Your task to perform on an android device: toggle wifi Image 0: 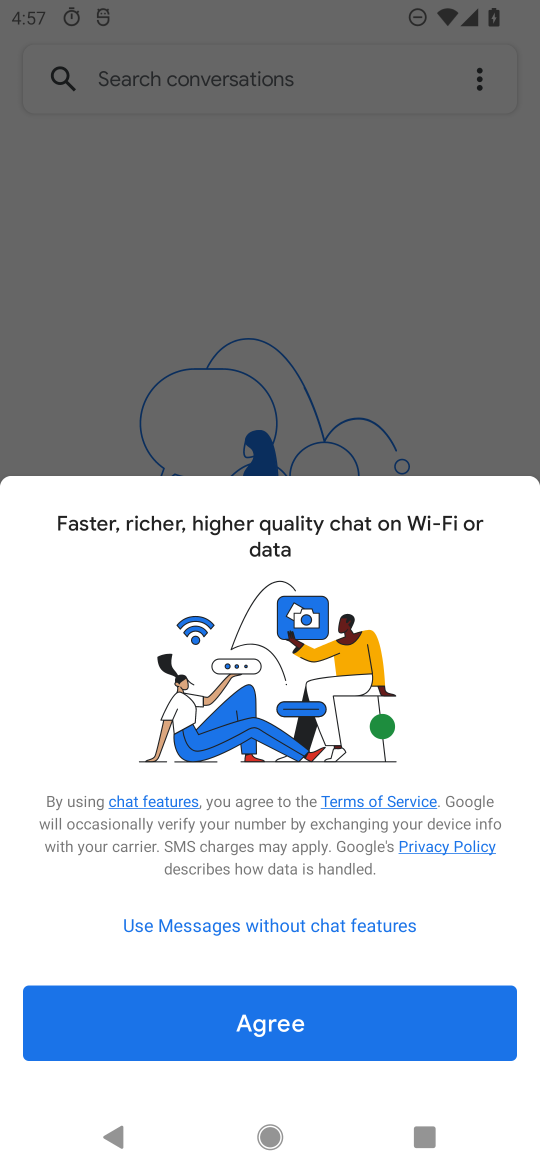
Step 0: press home button
Your task to perform on an android device: toggle wifi Image 1: 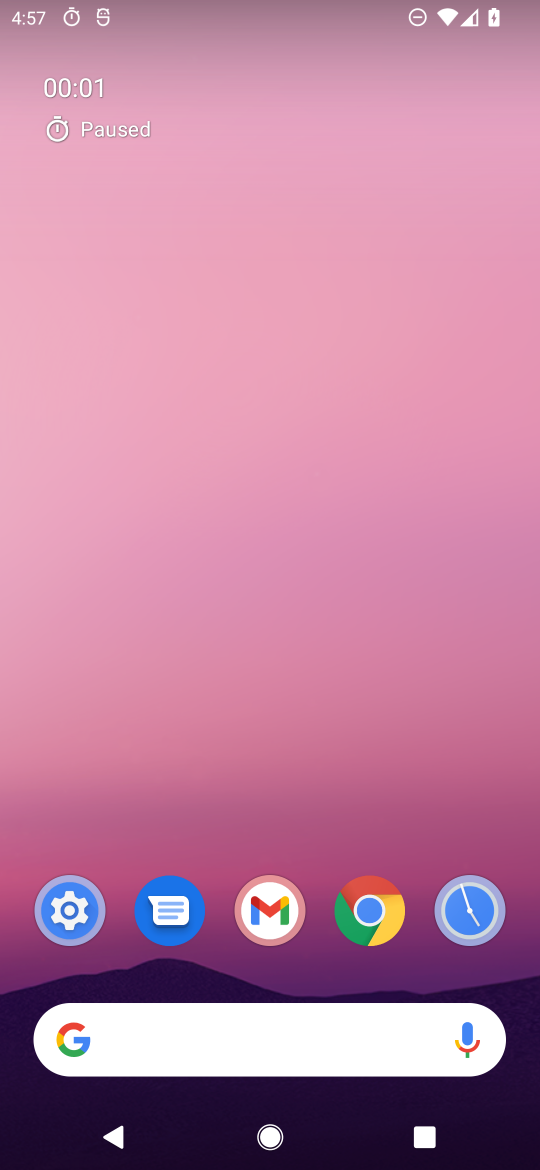
Step 1: drag from (49, 1125) to (268, 110)
Your task to perform on an android device: toggle wifi Image 2: 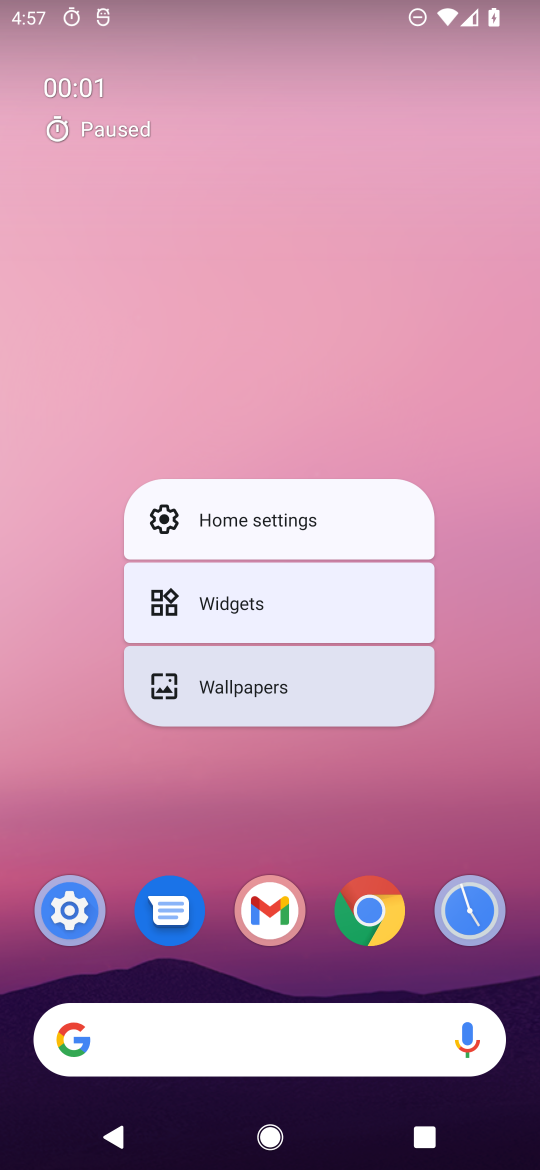
Step 2: click (69, 909)
Your task to perform on an android device: toggle wifi Image 3: 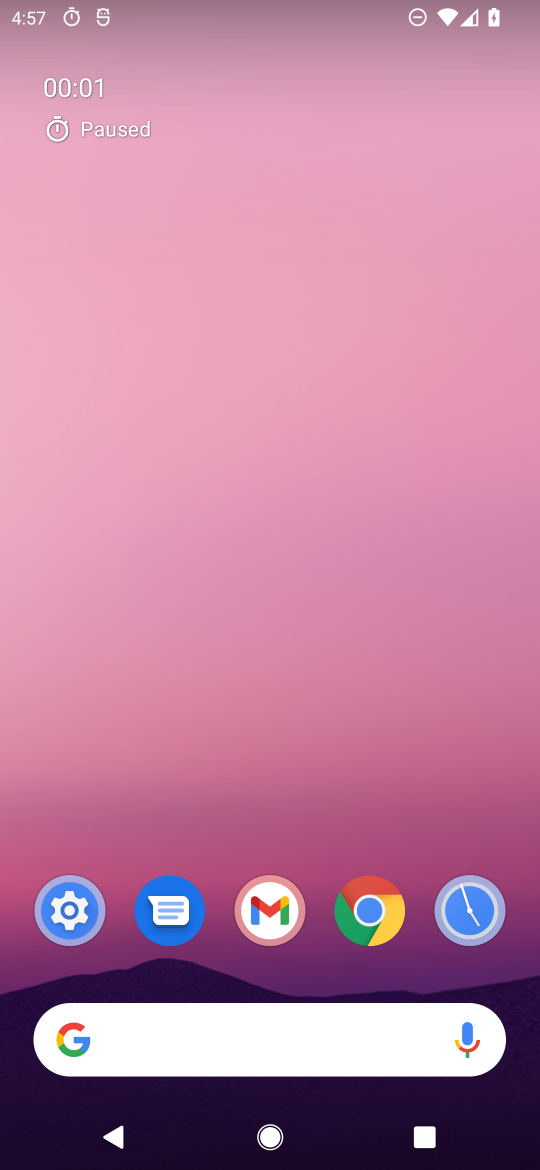
Step 3: click (77, 910)
Your task to perform on an android device: toggle wifi Image 4: 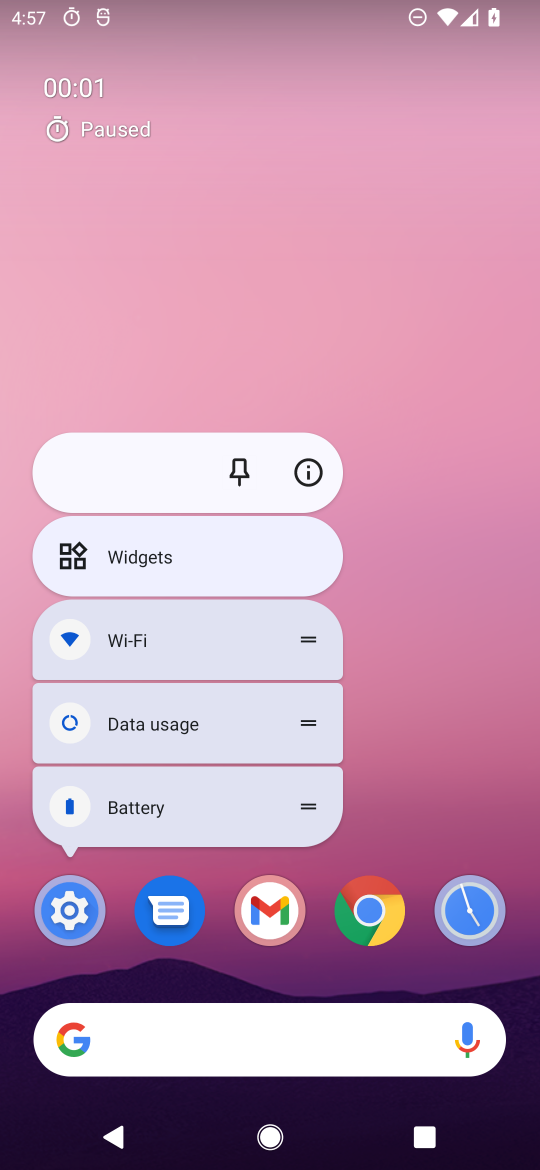
Step 4: click (117, 625)
Your task to perform on an android device: toggle wifi Image 5: 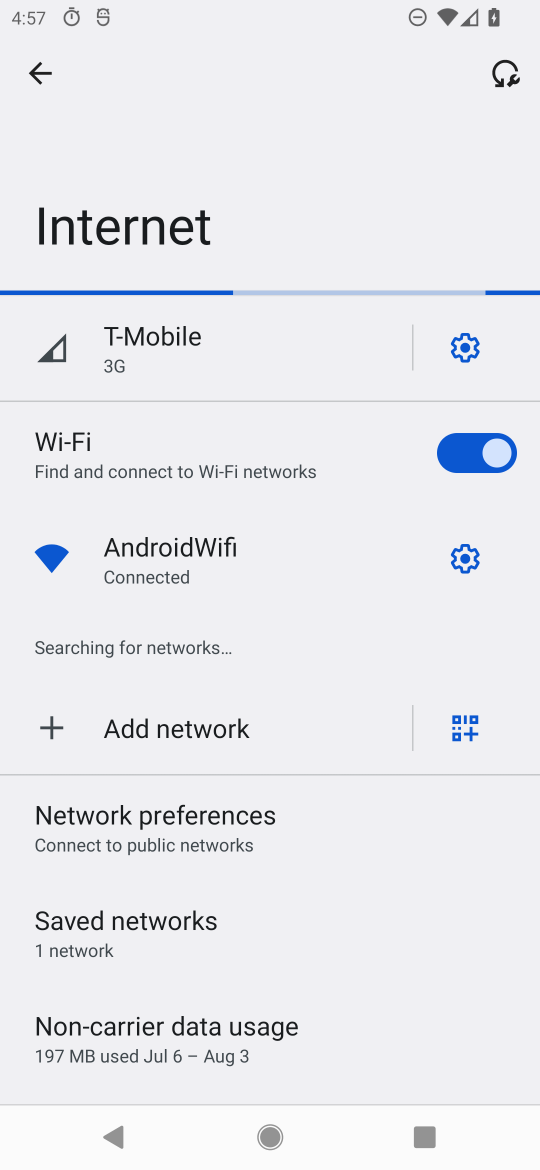
Step 5: task complete